Your task to perform on an android device: What is the news today? Image 0: 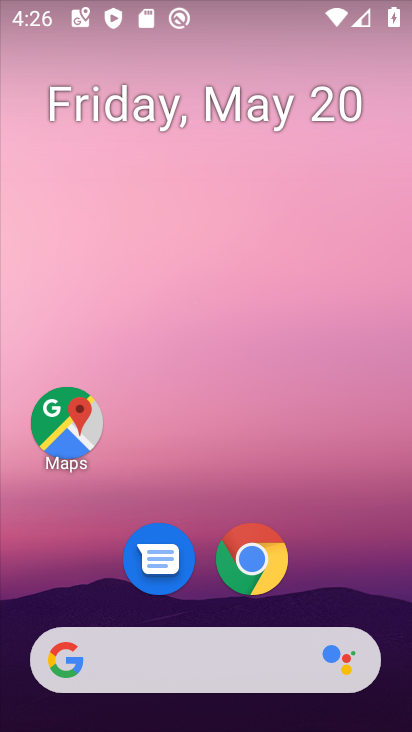
Step 0: drag from (158, 614) to (199, 198)
Your task to perform on an android device: What is the news today? Image 1: 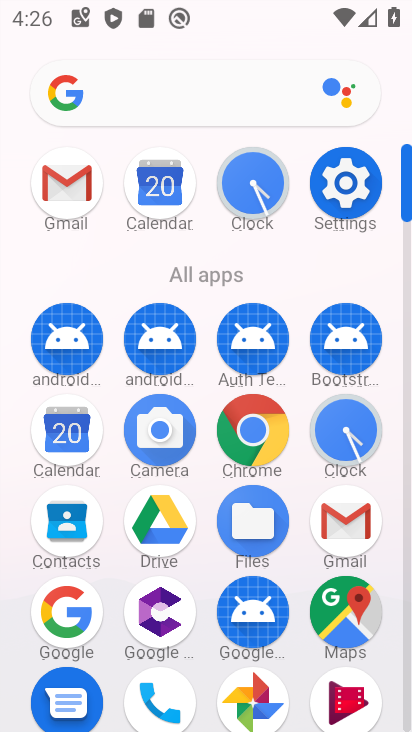
Step 1: click (61, 604)
Your task to perform on an android device: What is the news today? Image 2: 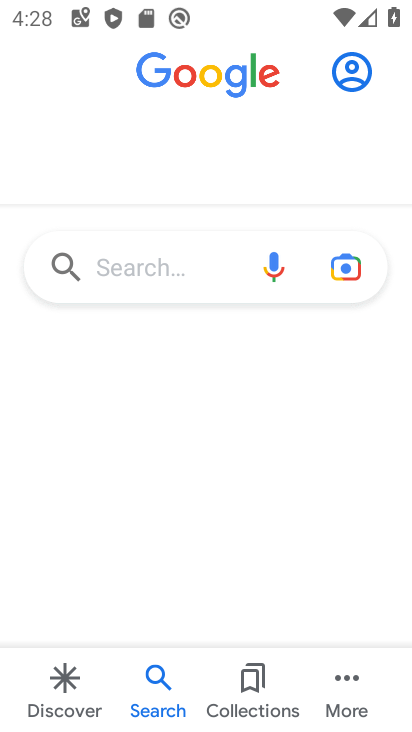
Step 2: click (180, 275)
Your task to perform on an android device: What is the news today? Image 3: 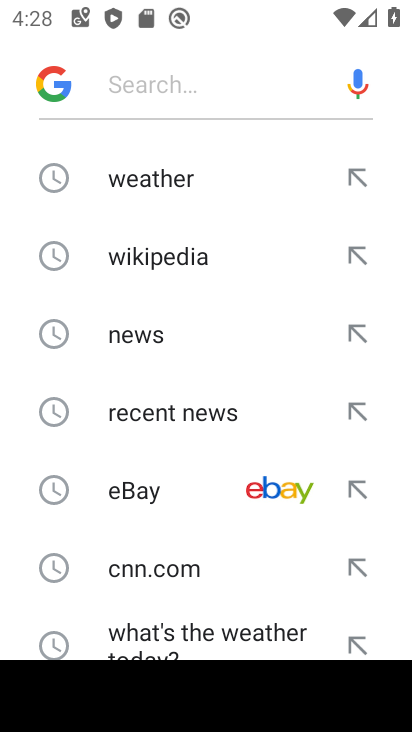
Step 3: drag from (131, 625) to (120, 325)
Your task to perform on an android device: What is the news today? Image 4: 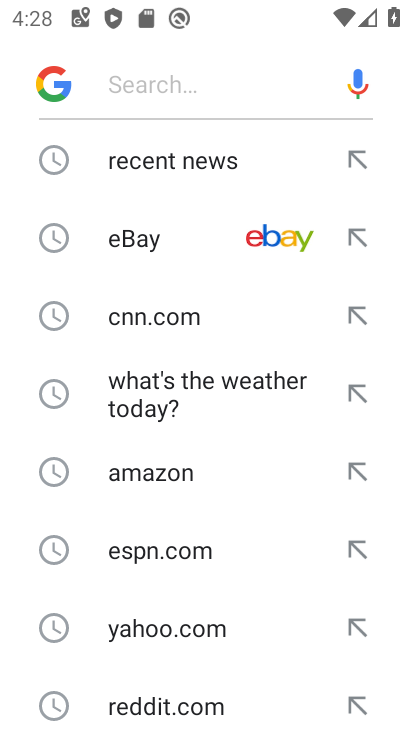
Step 4: drag from (163, 573) to (164, 270)
Your task to perform on an android device: What is the news today? Image 5: 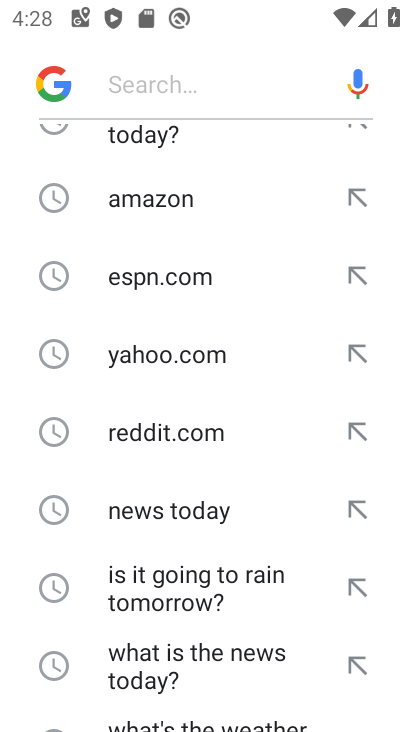
Step 5: drag from (171, 632) to (165, 365)
Your task to perform on an android device: What is the news today? Image 6: 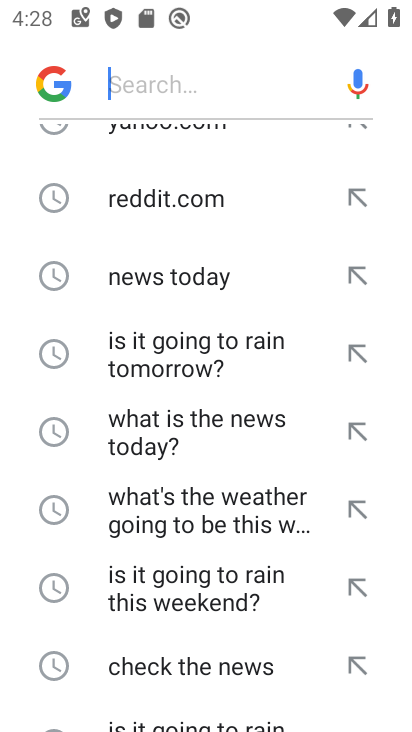
Step 6: click (169, 416)
Your task to perform on an android device: What is the news today? Image 7: 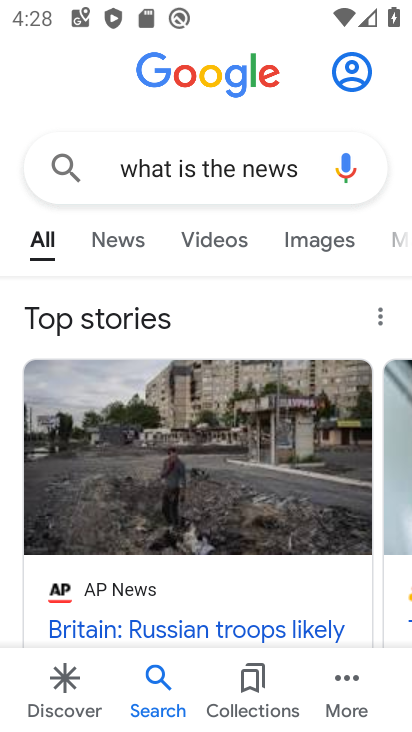
Step 7: task complete